Your task to perform on an android device: Open display settings Image 0: 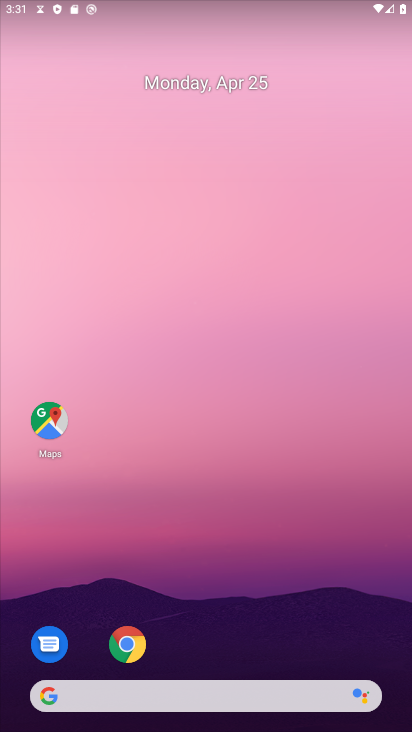
Step 0: drag from (205, 549) to (204, 109)
Your task to perform on an android device: Open display settings Image 1: 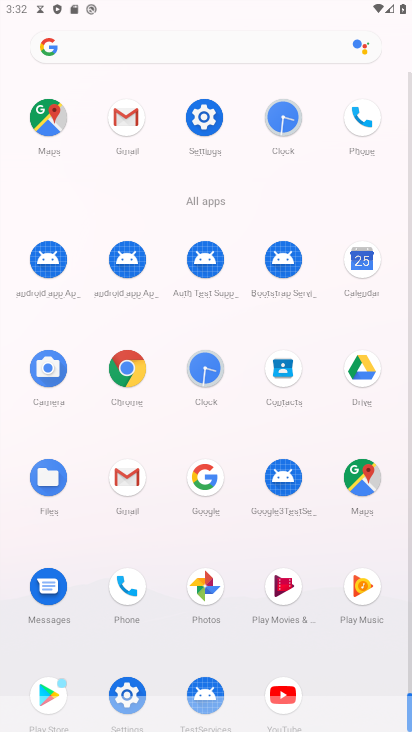
Step 1: click (125, 686)
Your task to perform on an android device: Open display settings Image 2: 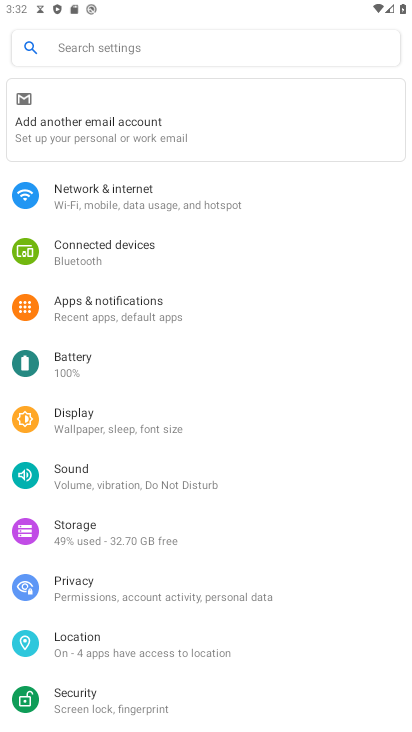
Step 2: click (99, 412)
Your task to perform on an android device: Open display settings Image 3: 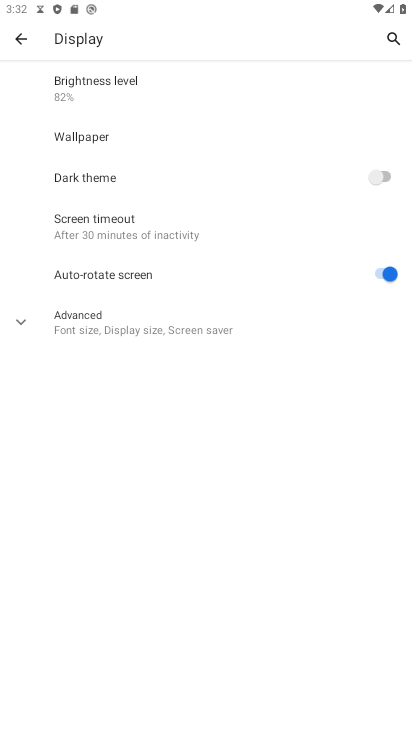
Step 3: click (78, 322)
Your task to perform on an android device: Open display settings Image 4: 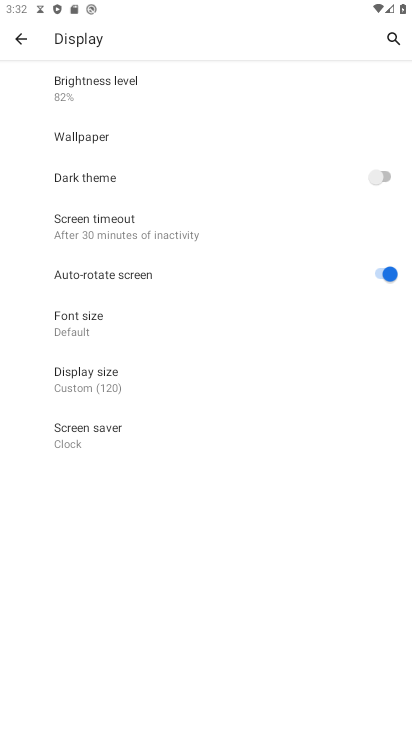
Step 4: task complete